Your task to perform on an android device: turn off javascript in the chrome app Image 0: 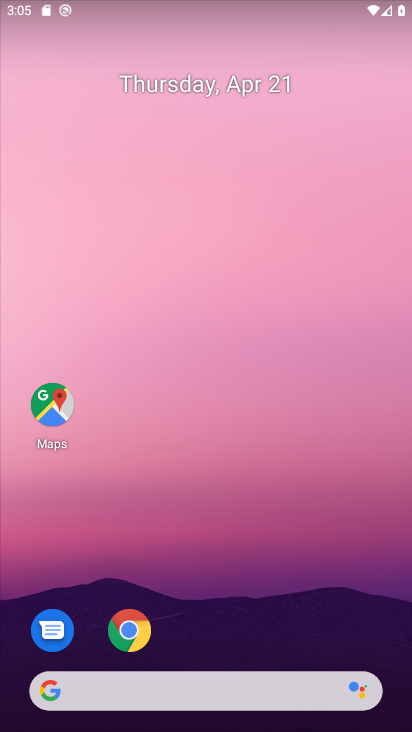
Step 0: drag from (204, 464) to (278, 63)
Your task to perform on an android device: turn off javascript in the chrome app Image 1: 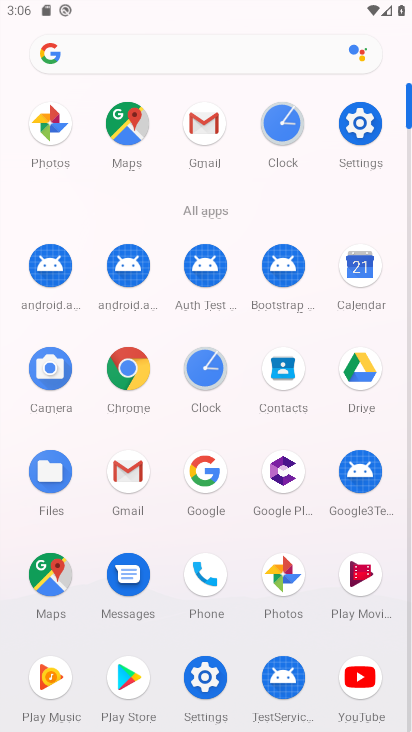
Step 1: click (122, 362)
Your task to perform on an android device: turn off javascript in the chrome app Image 2: 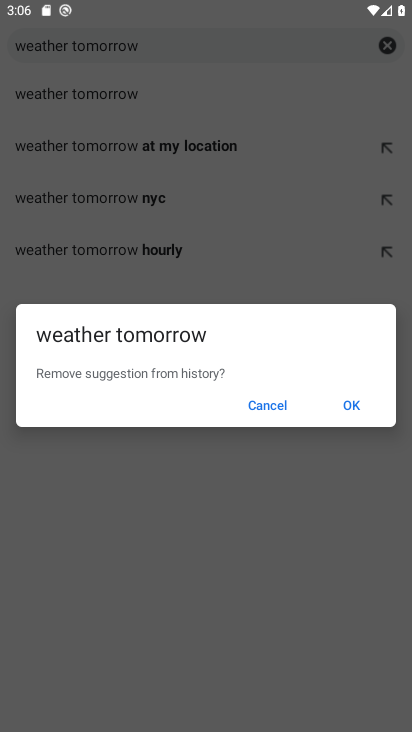
Step 2: click (255, 401)
Your task to perform on an android device: turn off javascript in the chrome app Image 3: 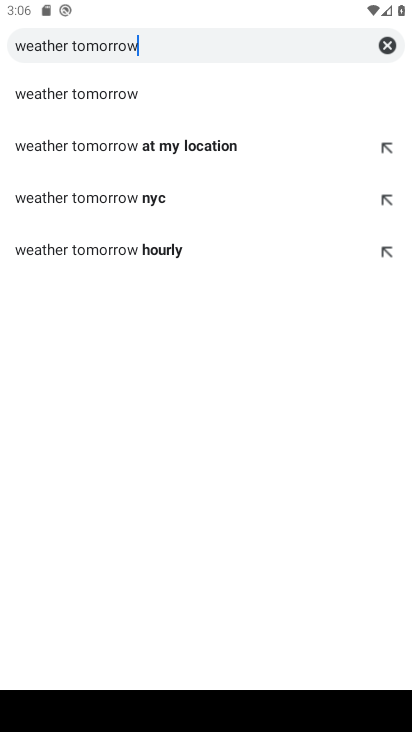
Step 3: press back button
Your task to perform on an android device: turn off javascript in the chrome app Image 4: 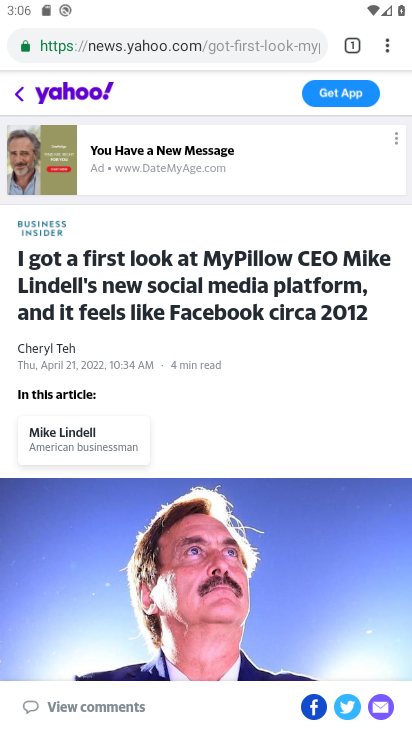
Step 4: drag from (390, 49) to (249, 553)
Your task to perform on an android device: turn off javascript in the chrome app Image 5: 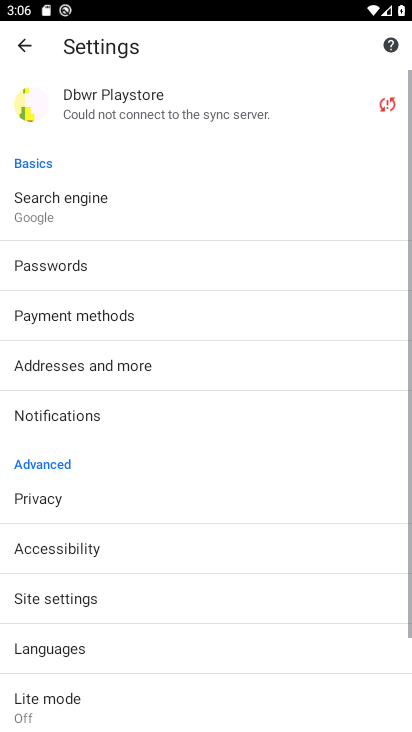
Step 5: drag from (229, 273) to (255, 162)
Your task to perform on an android device: turn off javascript in the chrome app Image 6: 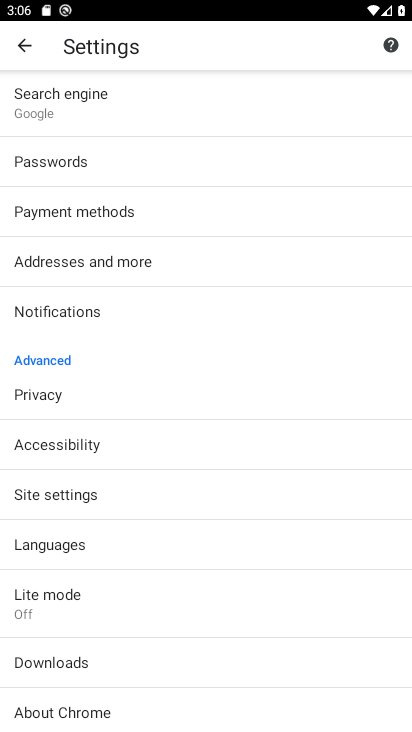
Step 6: click (74, 498)
Your task to perform on an android device: turn off javascript in the chrome app Image 7: 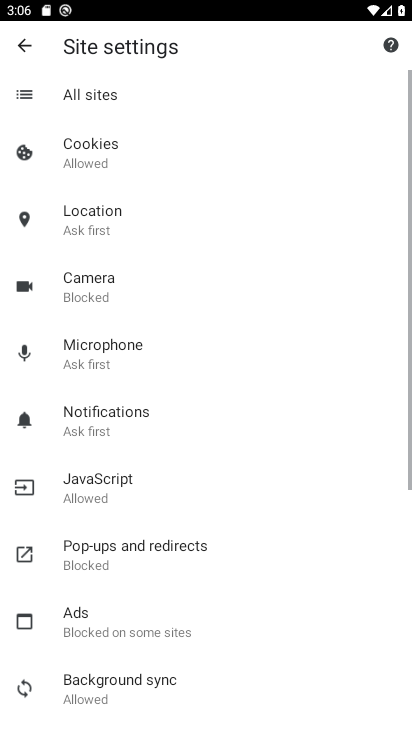
Step 7: drag from (223, 525) to (314, 170)
Your task to perform on an android device: turn off javascript in the chrome app Image 8: 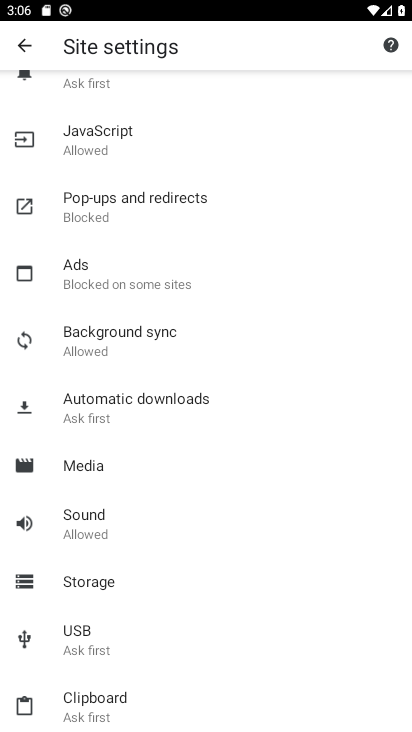
Step 8: click (117, 143)
Your task to perform on an android device: turn off javascript in the chrome app Image 9: 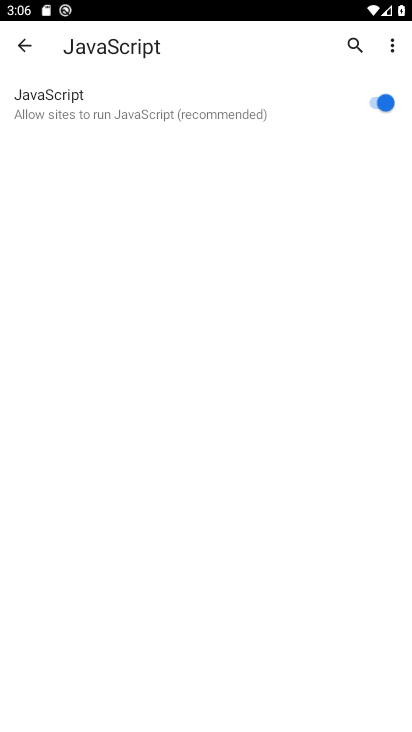
Step 9: click (377, 98)
Your task to perform on an android device: turn off javascript in the chrome app Image 10: 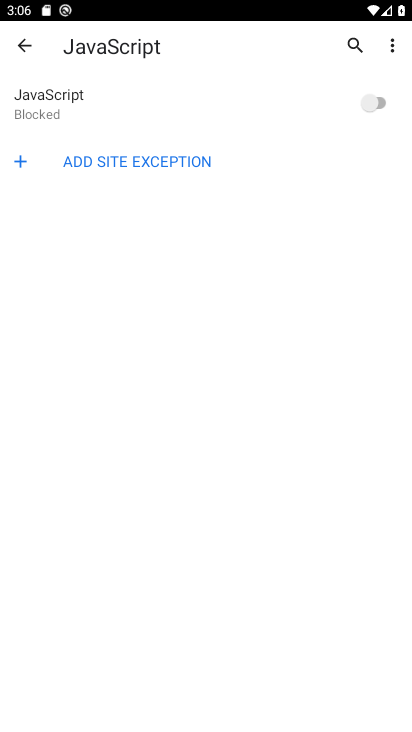
Step 10: task complete